Your task to perform on an android device: Go to accessibility settings Image 0: 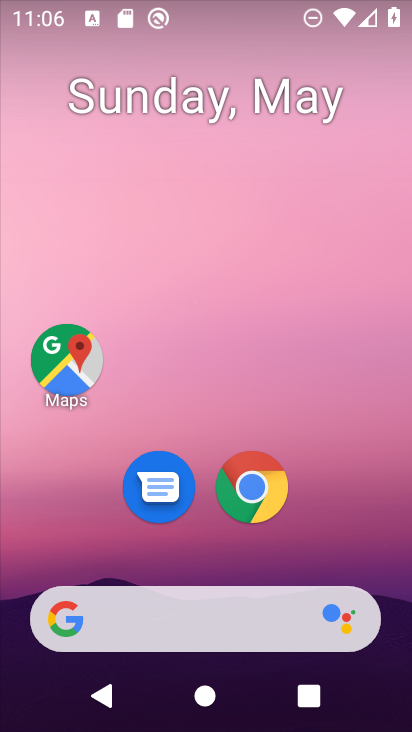
Step 0: drag from (253, 612) to (376, 53)
Your task to perform on an android device: Go to accessibility settings Image 1: 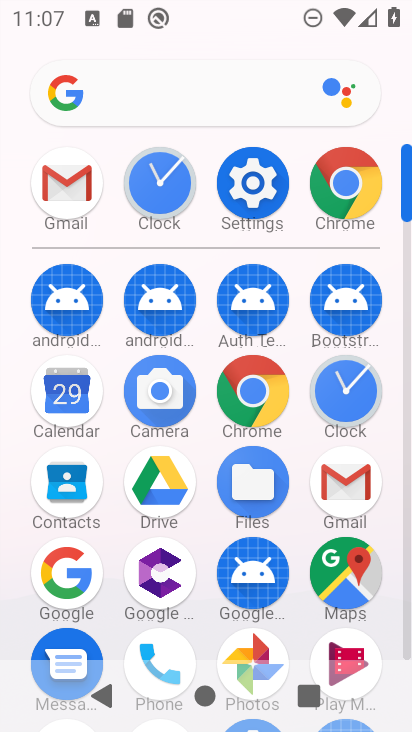
Step 1: click (246, 201)
Your task to perform on an android device: Go to accessibility settings Image 2: 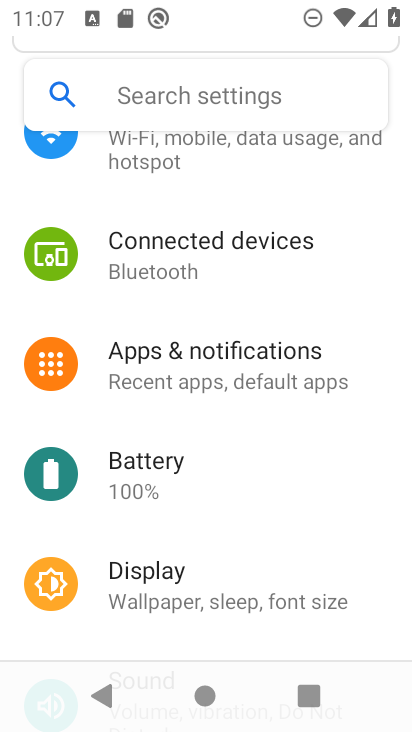
Step 2: drag from (137, 533) to (213, 178)
Your task to perform on an android device: Go to accessibility settings Image 3: 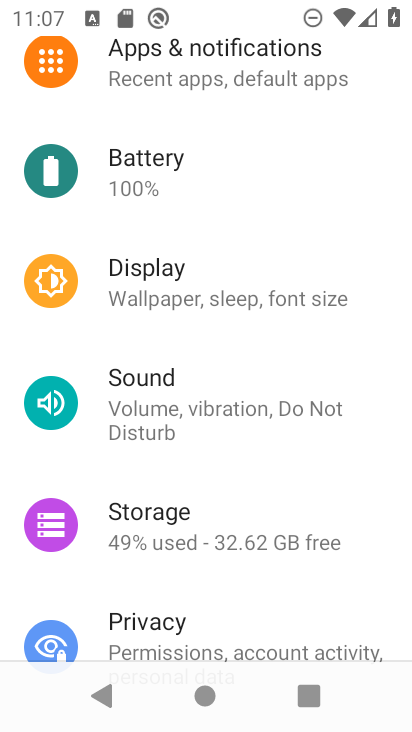
Step 3: drag from (182, 529) to (275, 224)
Your task to perform on an android device: Go to accessibility settings Image 4: 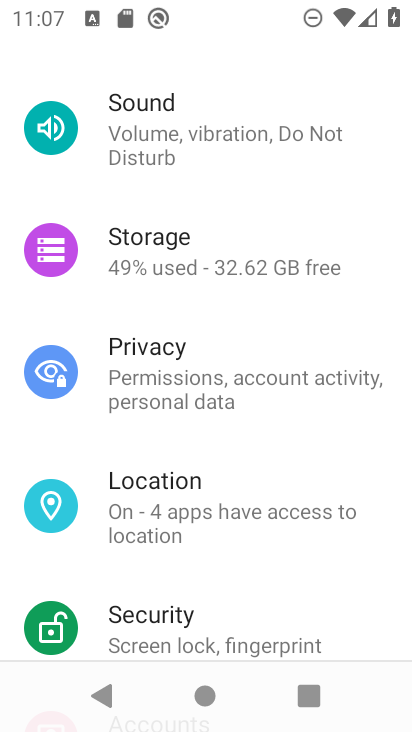
Step 4: drag from (229, 529) to (314, 173)
Your task to perform on an android device: Go to accessibility settings Image 5: 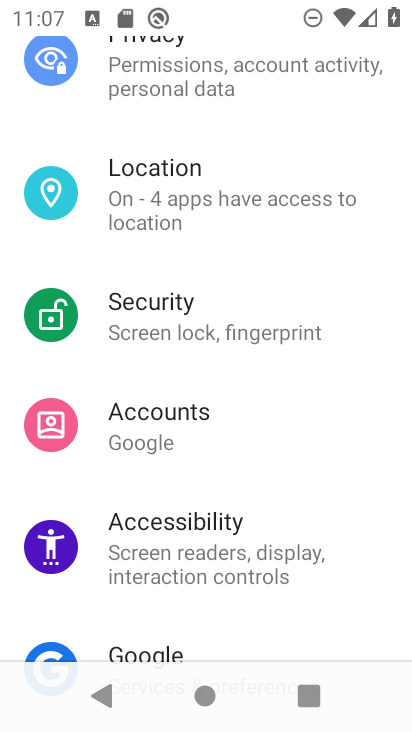
Step 5: click (222, 546)
Your task to perform on an android device: Go to accessibility settings Image 6: 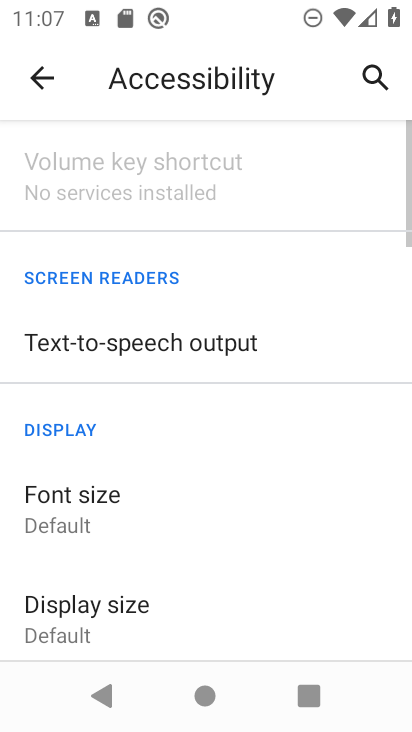
Step 6: task complete